Your task to perform on an android device: Open Chrome and go to settings Image 0: 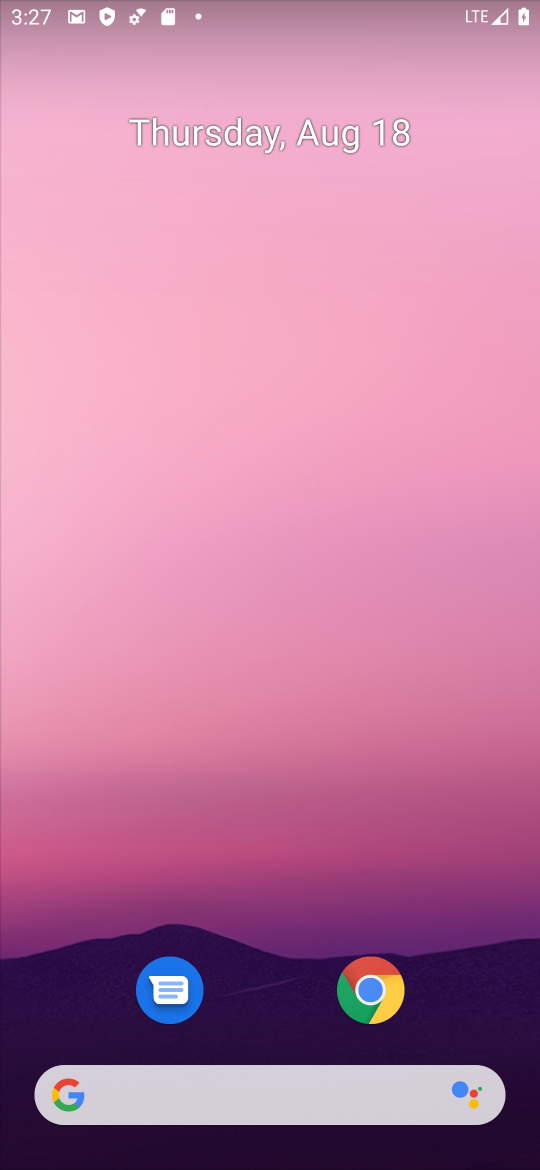
Step 0: press home button
Your task to perform on an android device: Open Chrome and go to settings Image 1: 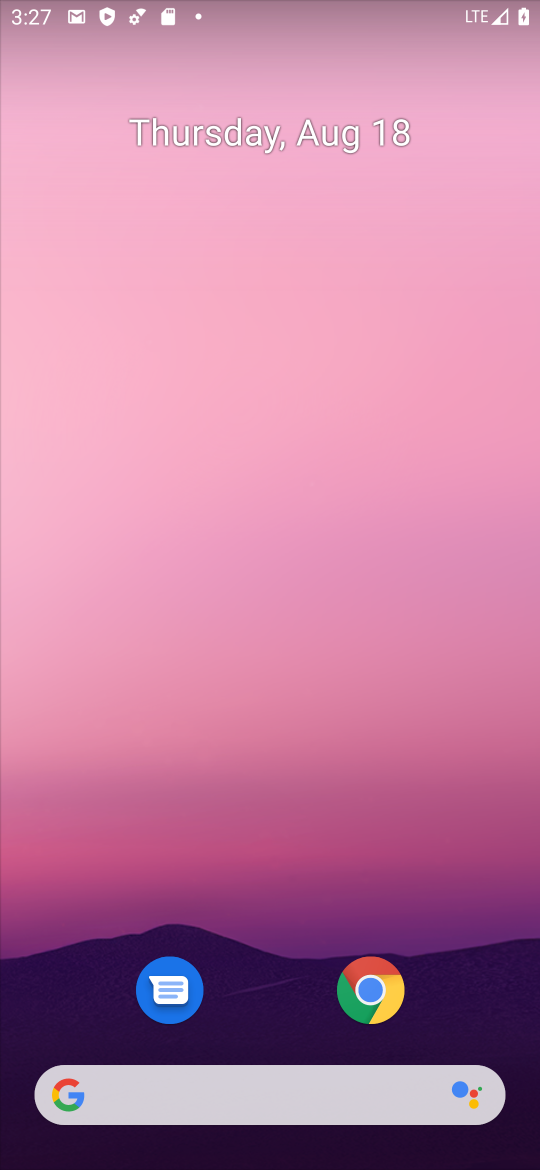
Step 1: press home button
Your task to perform on an android device: Open Chrome and go to settings Image 2: 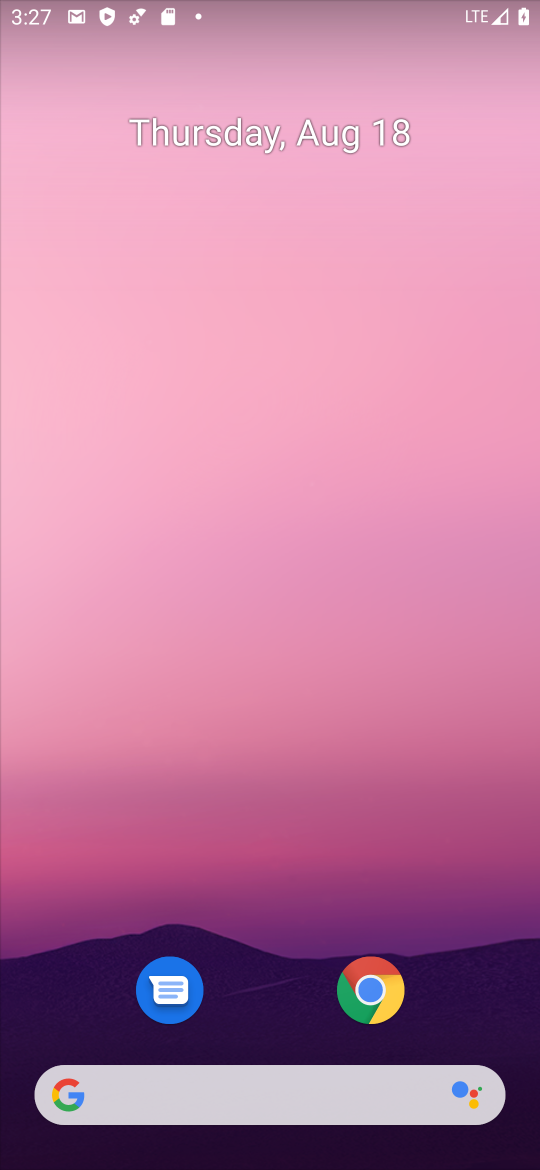
Step 2: drag from (275, 818) to (316, 157)
Your task to perform on an android device: Open Chrome and go to settings Image 3: 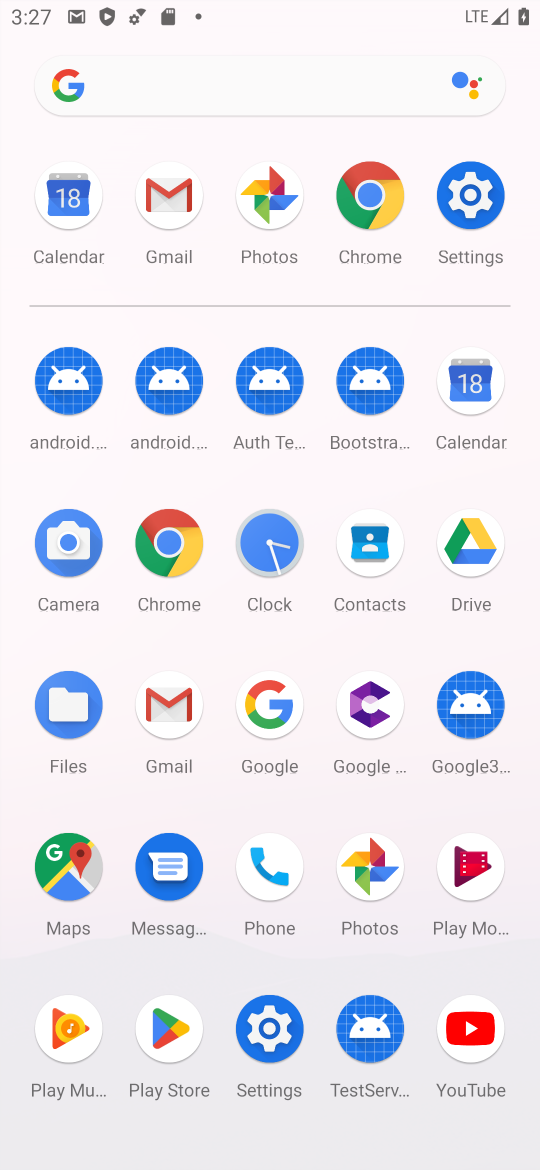
Step 3: click (167, 548)
Your task to perform on an android device: Open Chrome and go to settings Image 4: 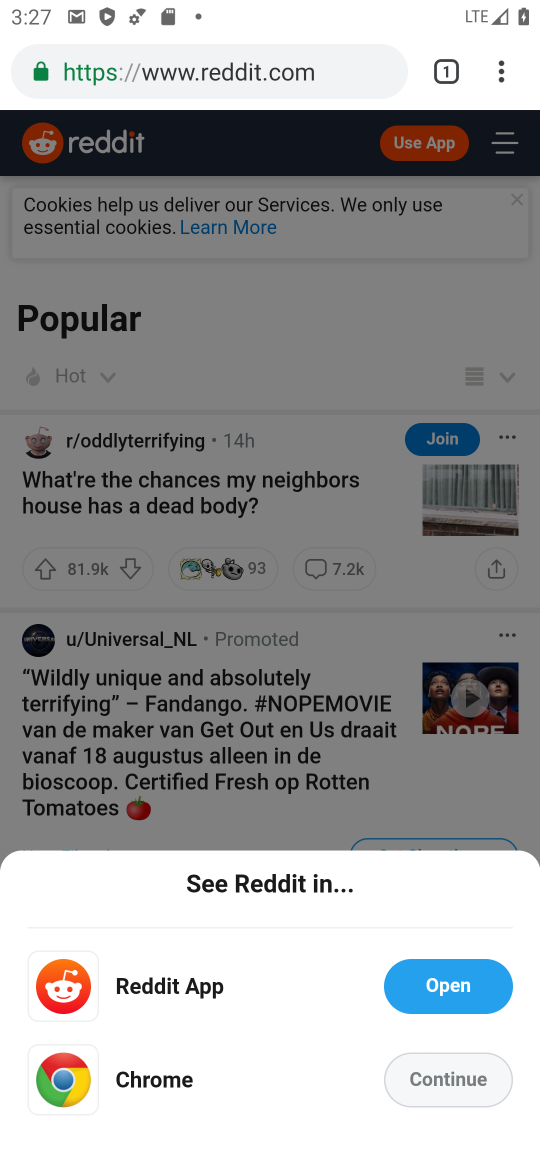
Step 4: click (509, 70)
Your task to perform on an android device: Open Chrome and go to settings Image 5: 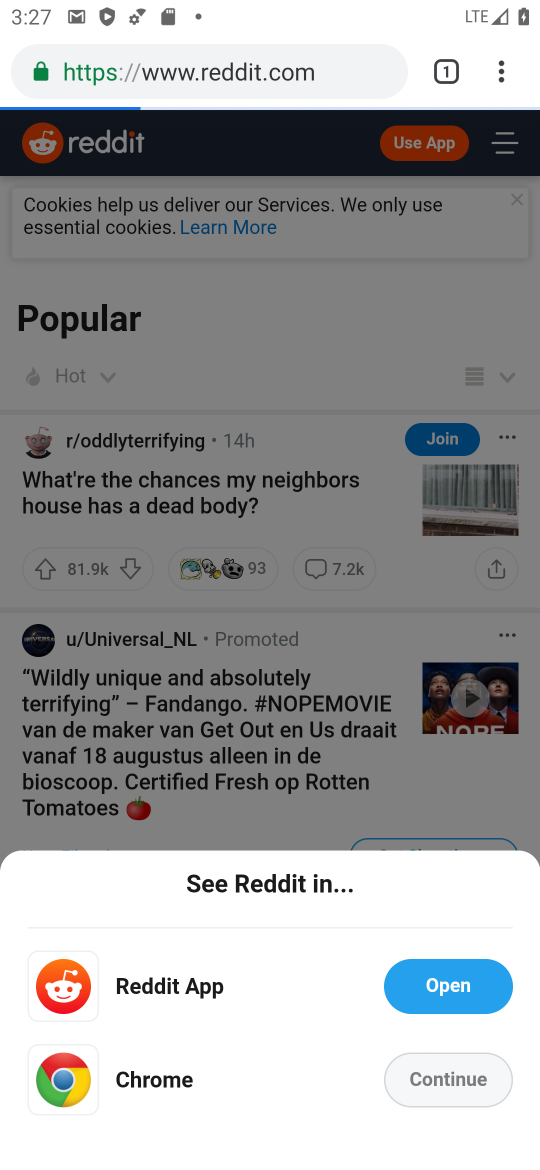
Step 5: task complete